Your task to perform on an android device: turn on location history Image 0: 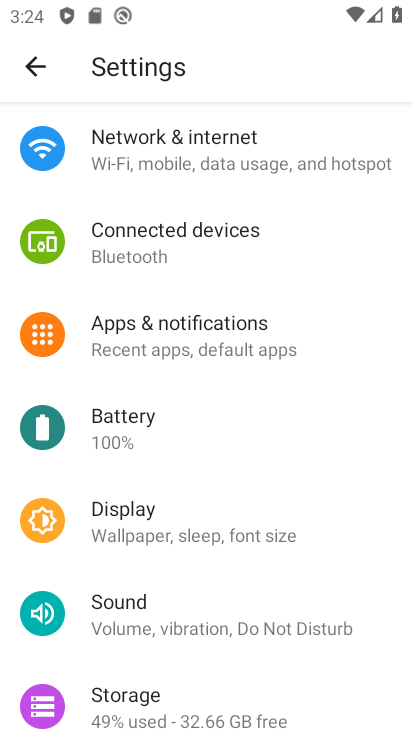
Step 0: drag from (233, 608) to (229, 252)
Your task to perform on an android device: turn on location history Image 1: 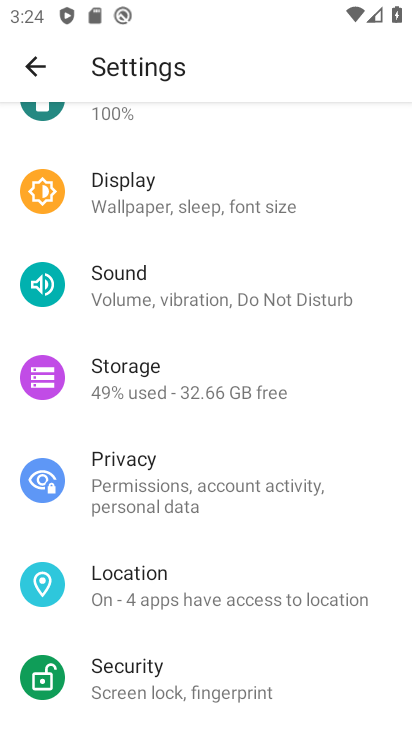
Step 1: click (202, 582)
Your task to perform on an android device: turn on location history Image 2: 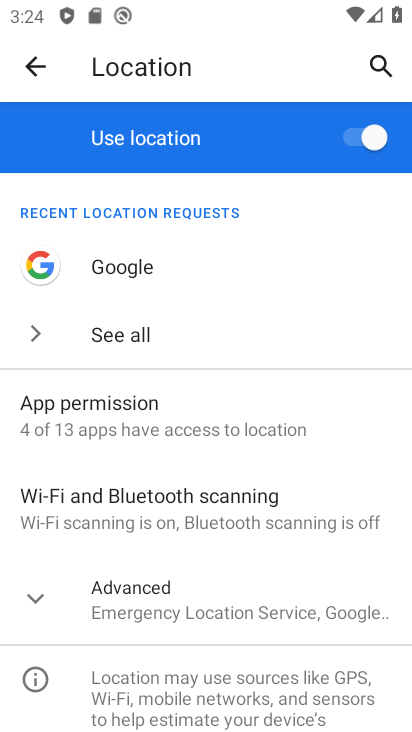
Step 2: click (30, 592)
Your task to perform on an android device: turn on location history Image 3: 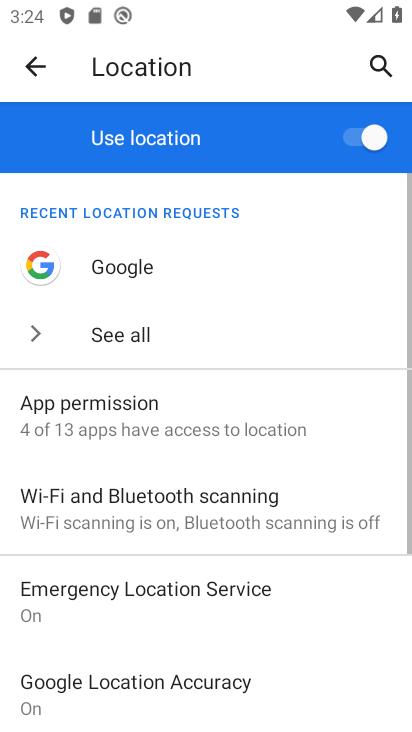
Step 3: drag from (328, 568) to (296, 208)
Your task to perform on an android device: turn on location history Image 4: 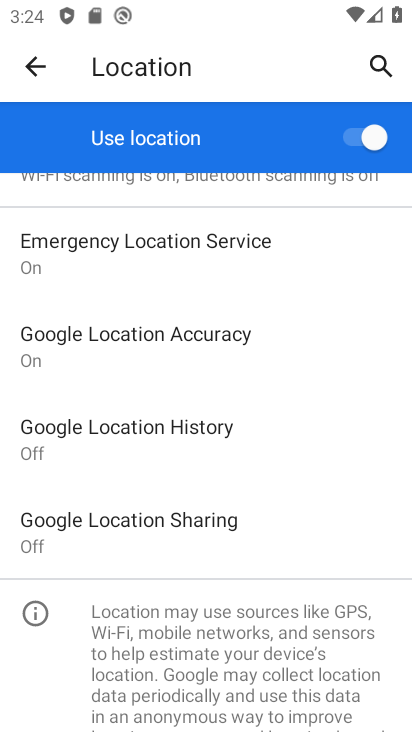
Step 4: click (217, 439)
Your task to perform on an android device: turn on location history Image 5: 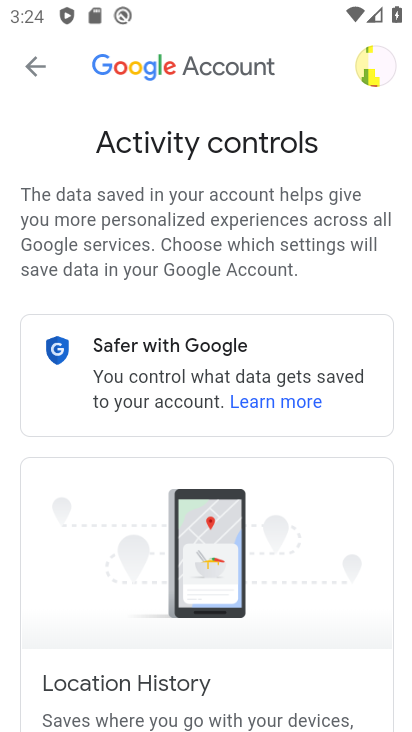
Step 5: task complete